Your task to perform on an android device: visit the assistant section in the google photos Image 0: 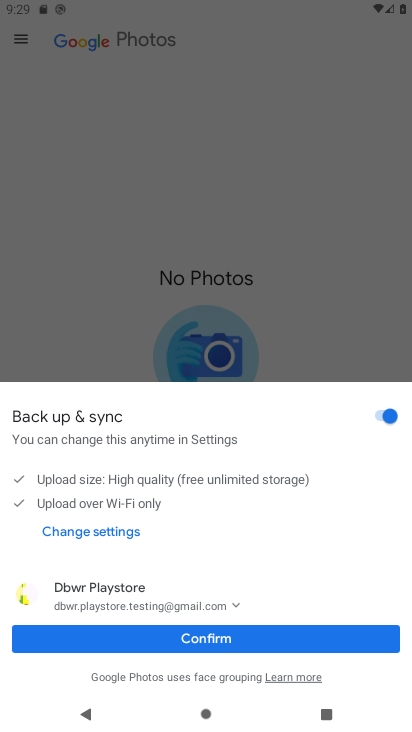
Step 0: press home button
Your task to perform on an android device: visit the assistant section in the google photos Image 1: 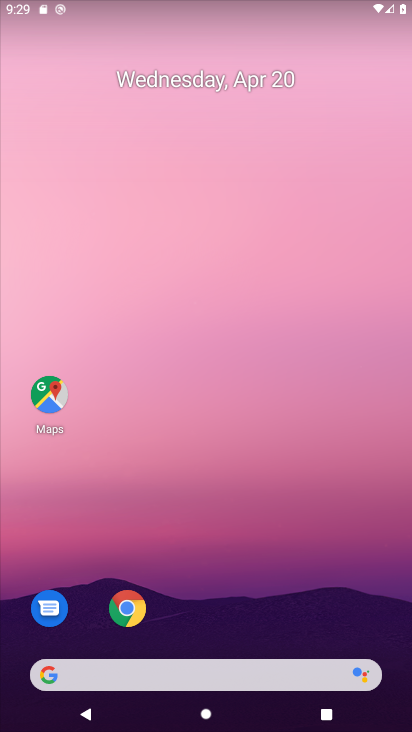
Step 1: drag from (153, 464) to (151, 207)
Your task to perform on an android device: visit the assistant section in the google photos Image 2: 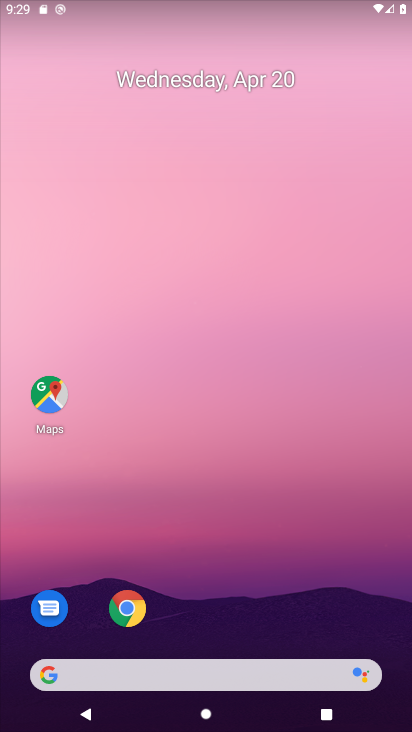
Step 2: drag from (172, 644) to (114, 8)
Your task to perform on an android device: visit the assistant section in the google photos Image 3: 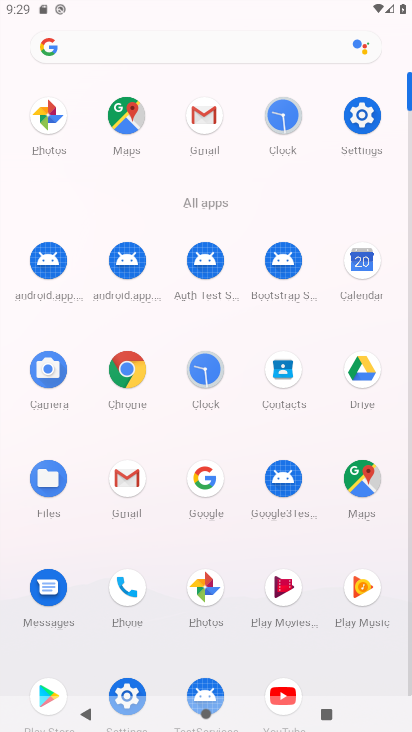
Step 3: click (38, 122)
Your task to perform on an android device: visit the assistant section in the google photos Image 4: 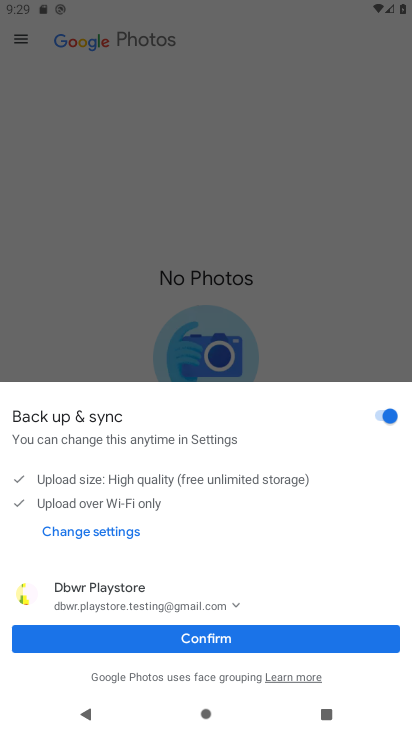
Step 4: click (237, 644)
Your task to perform on an android device: visit the assistant section in the google photos Image 5: 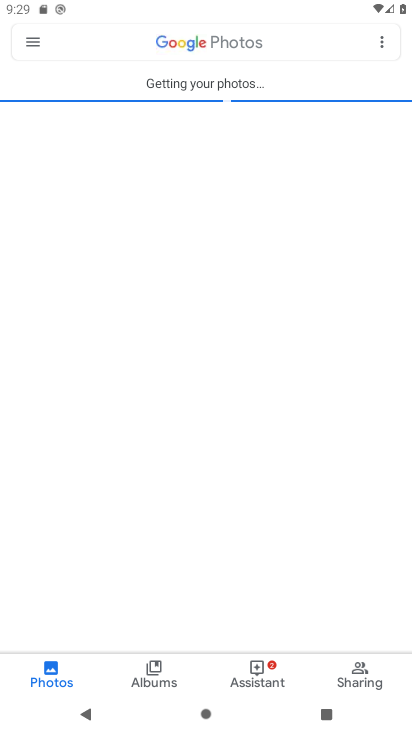
Step 5: click (26, 37)
Your task to perform on an android device: visit the assistant section in the google photos Image 6: 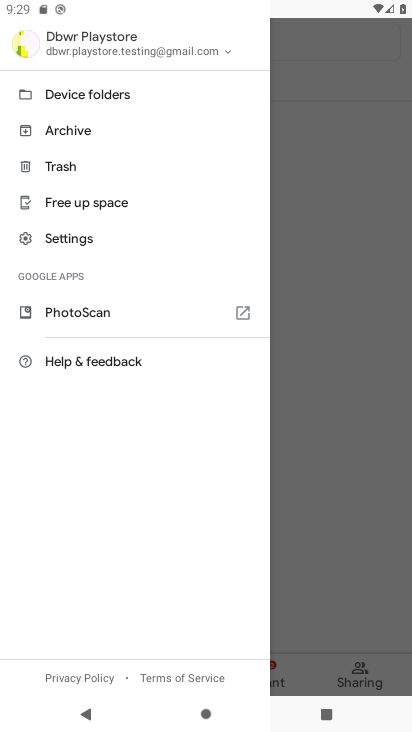
Step 6: click (283, 678)
Your task to perform on an android device: visit the assistant section in the google photos Image 7: 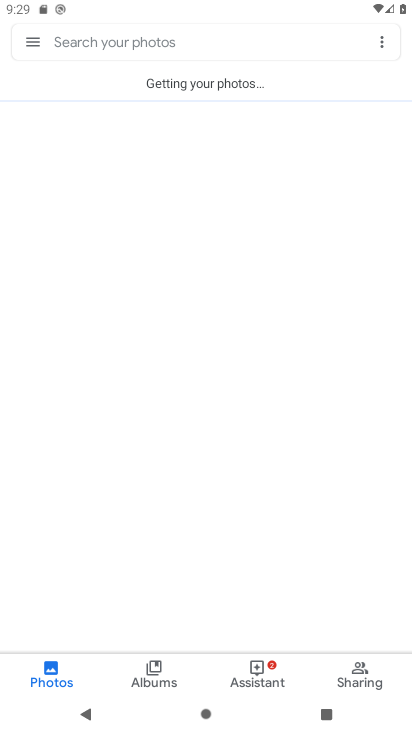
Step 7: click (278, 680)
Your task to perform on an android device: visit the assistant section in the google photos Image 8: 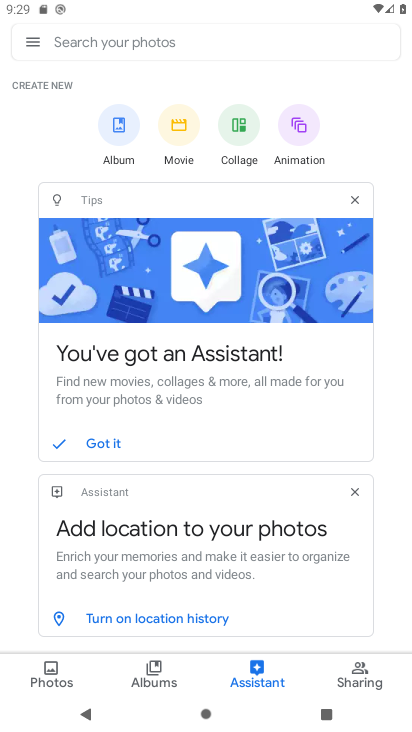
Step 8: task complete